Your task to perform on an android device: turn off data saver in the chrome app Image 0: 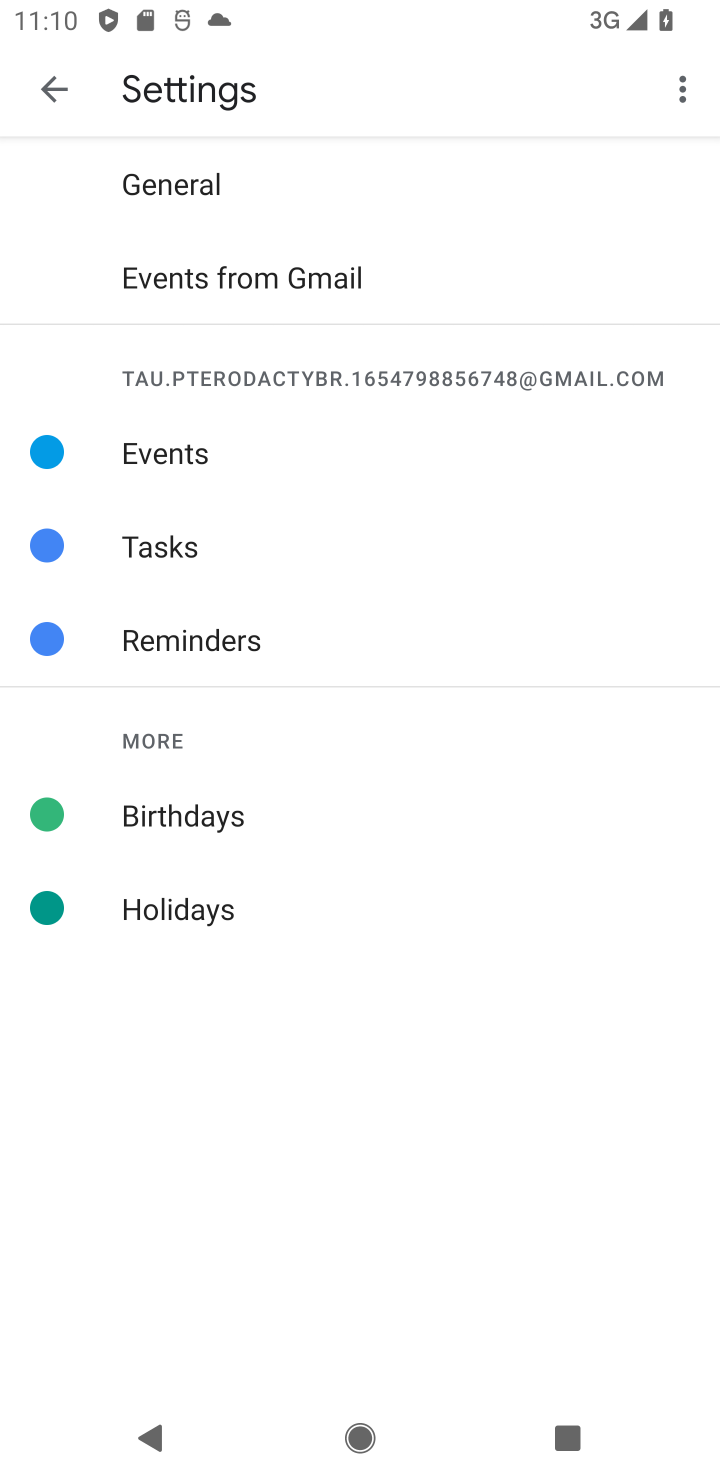
Step 0: press home button
Your task to perform on an android device: turn off data saver in the chrome app Image 1: 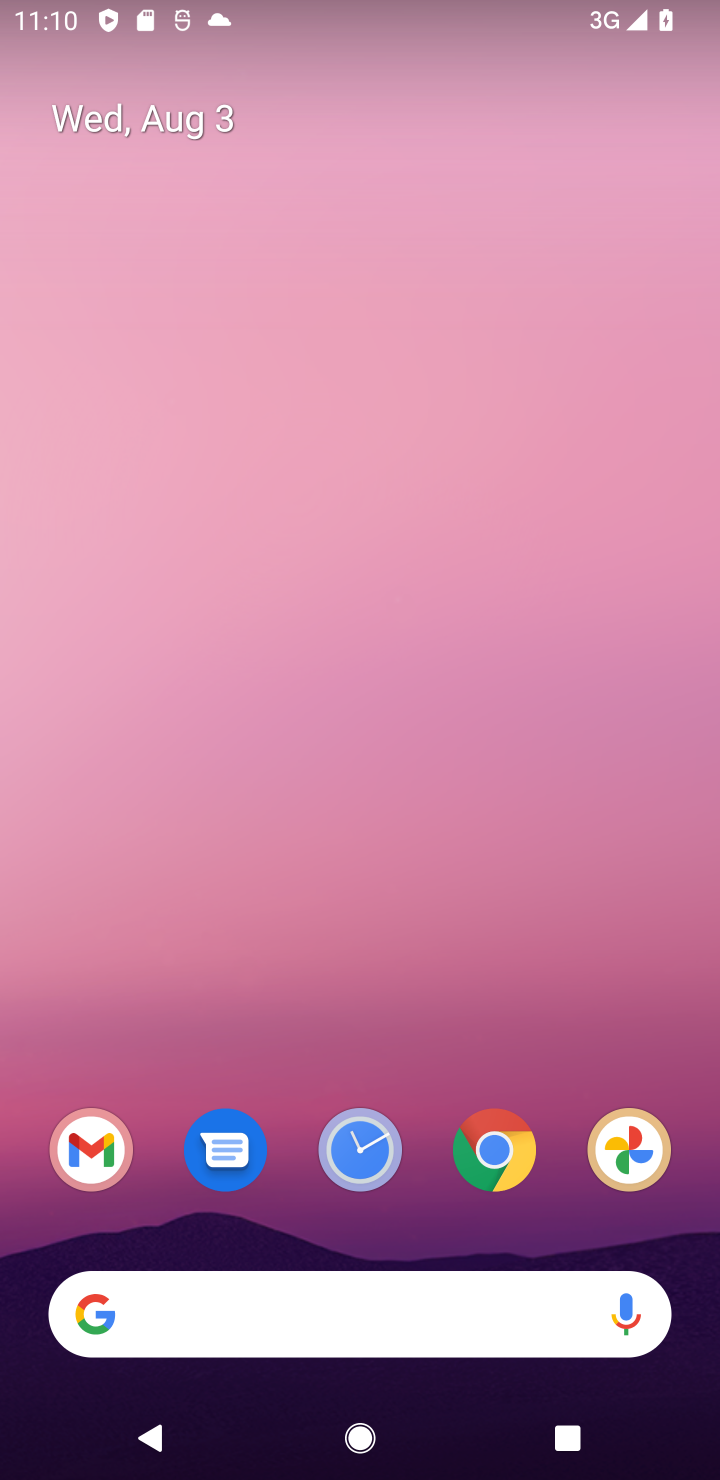
Step 1: drag from (449, 1012) to (508, 333)
Your task to perform on an android device: turn off data saver in the chrome app Image 2: 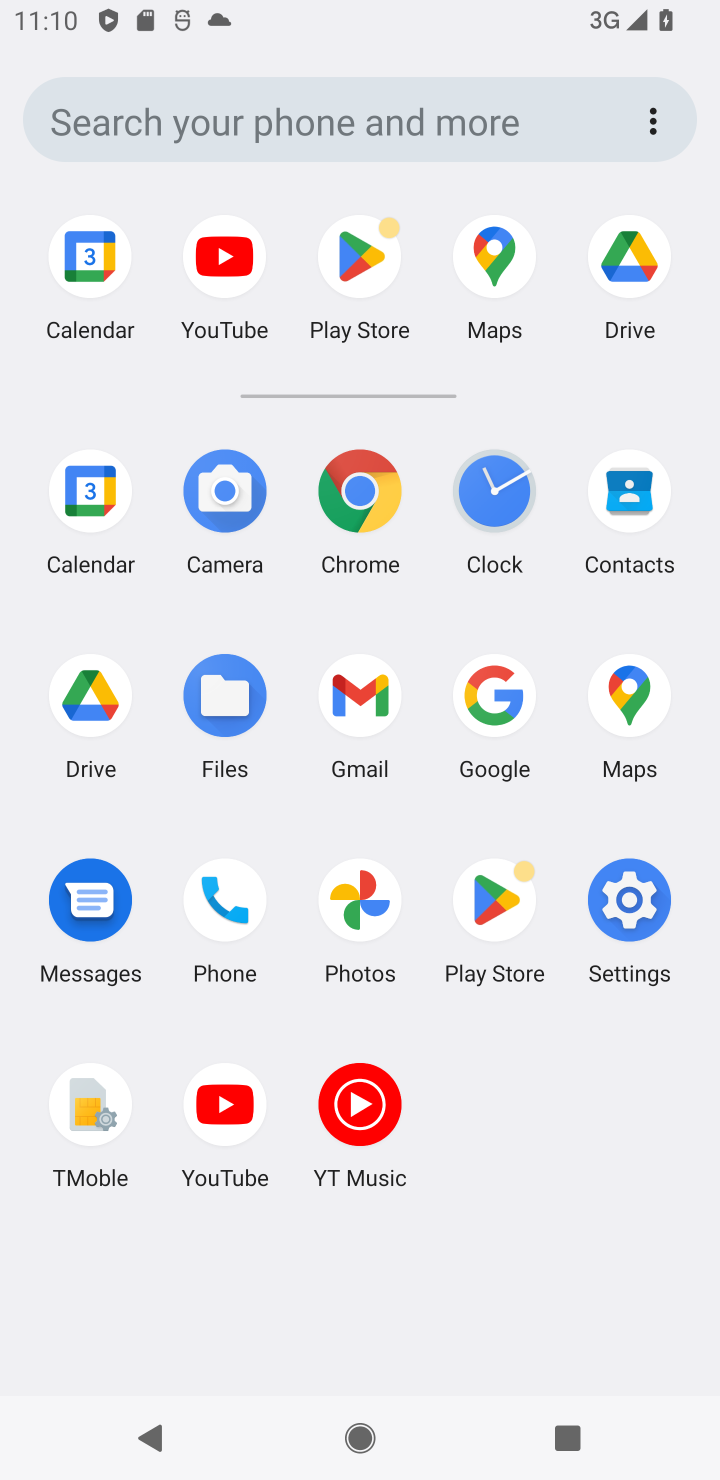
Step 2: click (353, 498)
Your task to perform on an android device: turn off data saver in the chrome app Image 3: 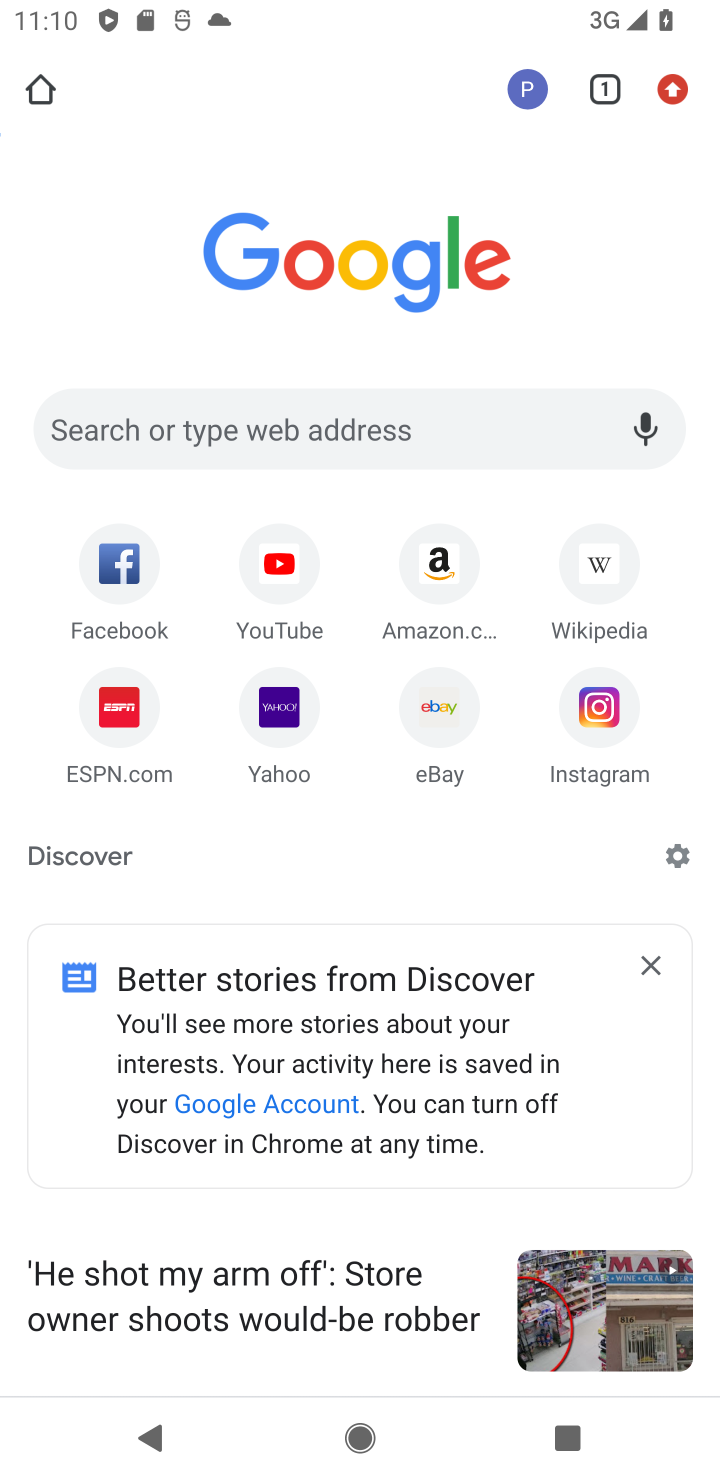
Step 3: click (674, 98)
Your task to perform on an android device: turn off data saver in the chrome app Image 4: 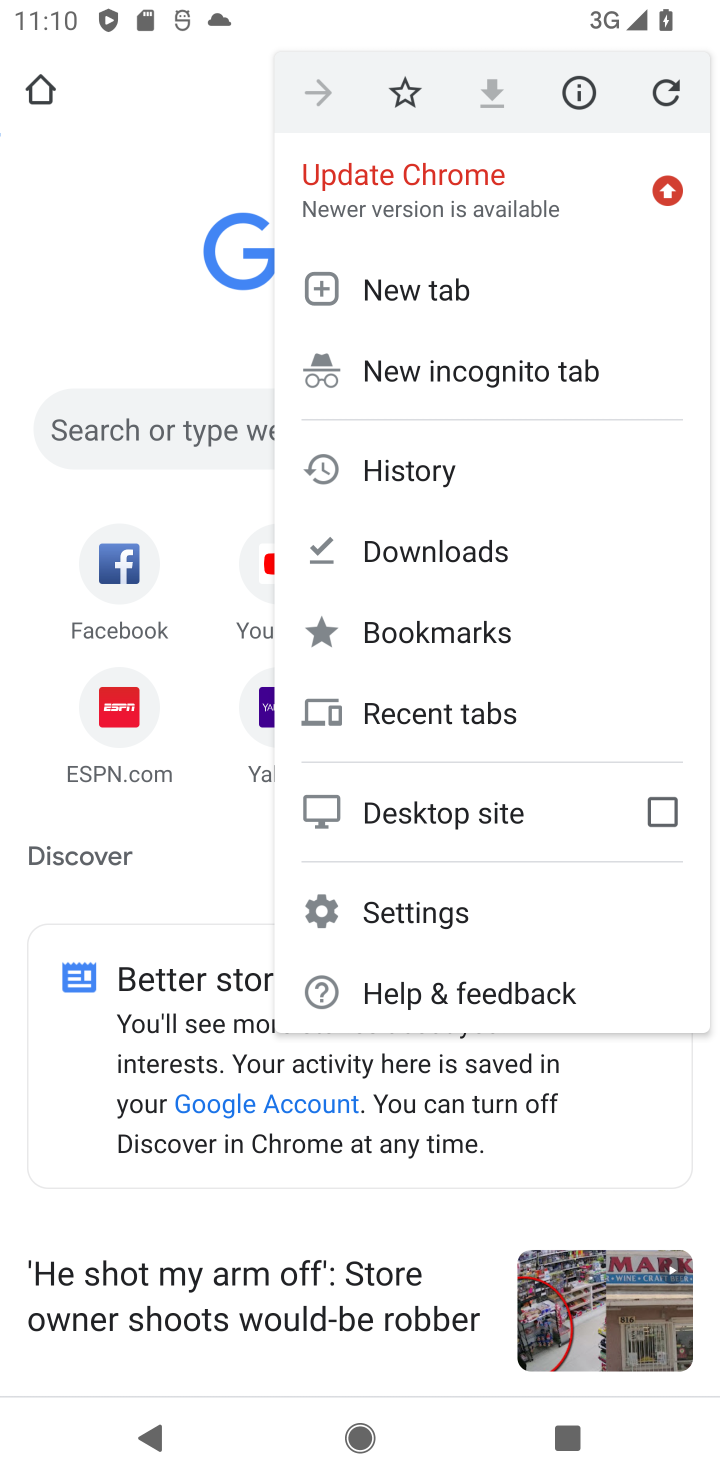
Step 4: click (469, 907)
Your task to perform on an android device: turn off data saver in the chrome app Image 5: 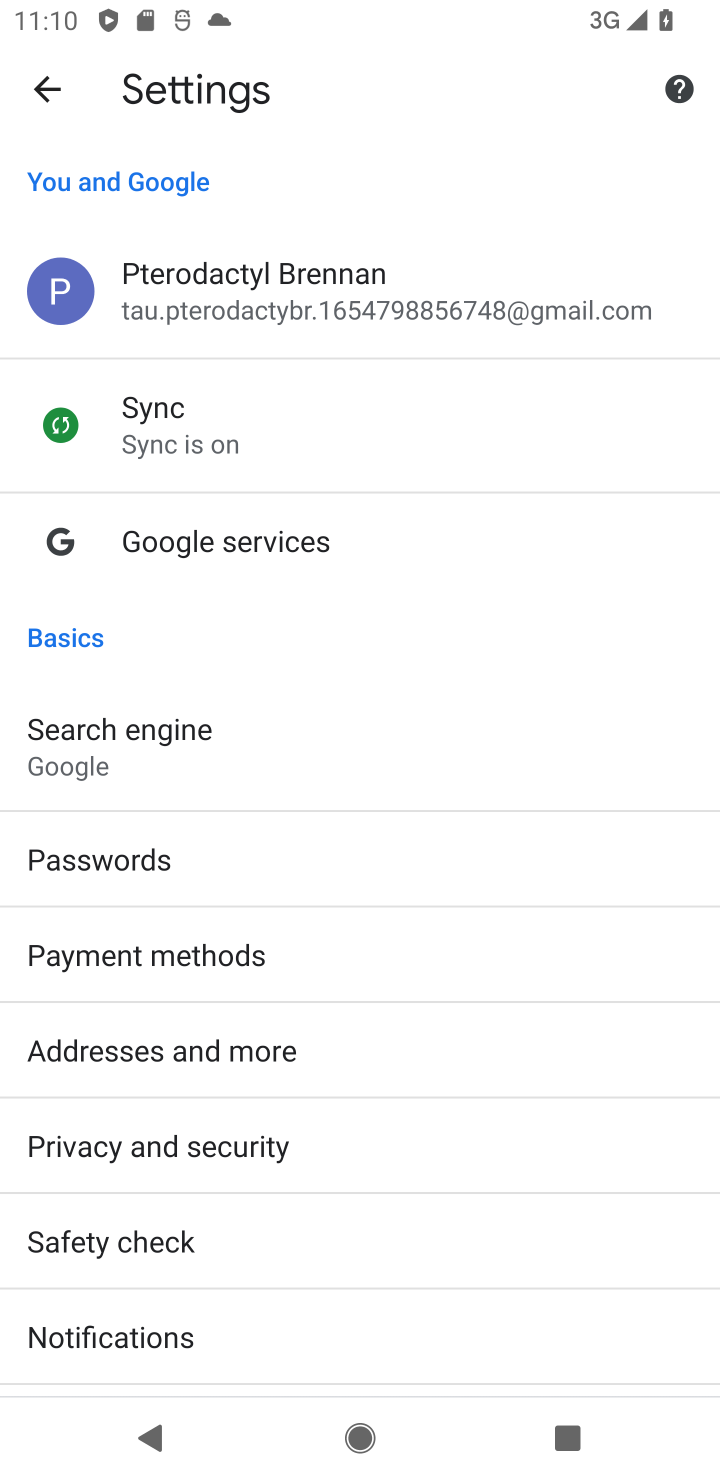
Step 5: drag from (530, 1020) to (541, 744)
Your task to perform on an android device: turn off data saver in the chrome app Image 6: 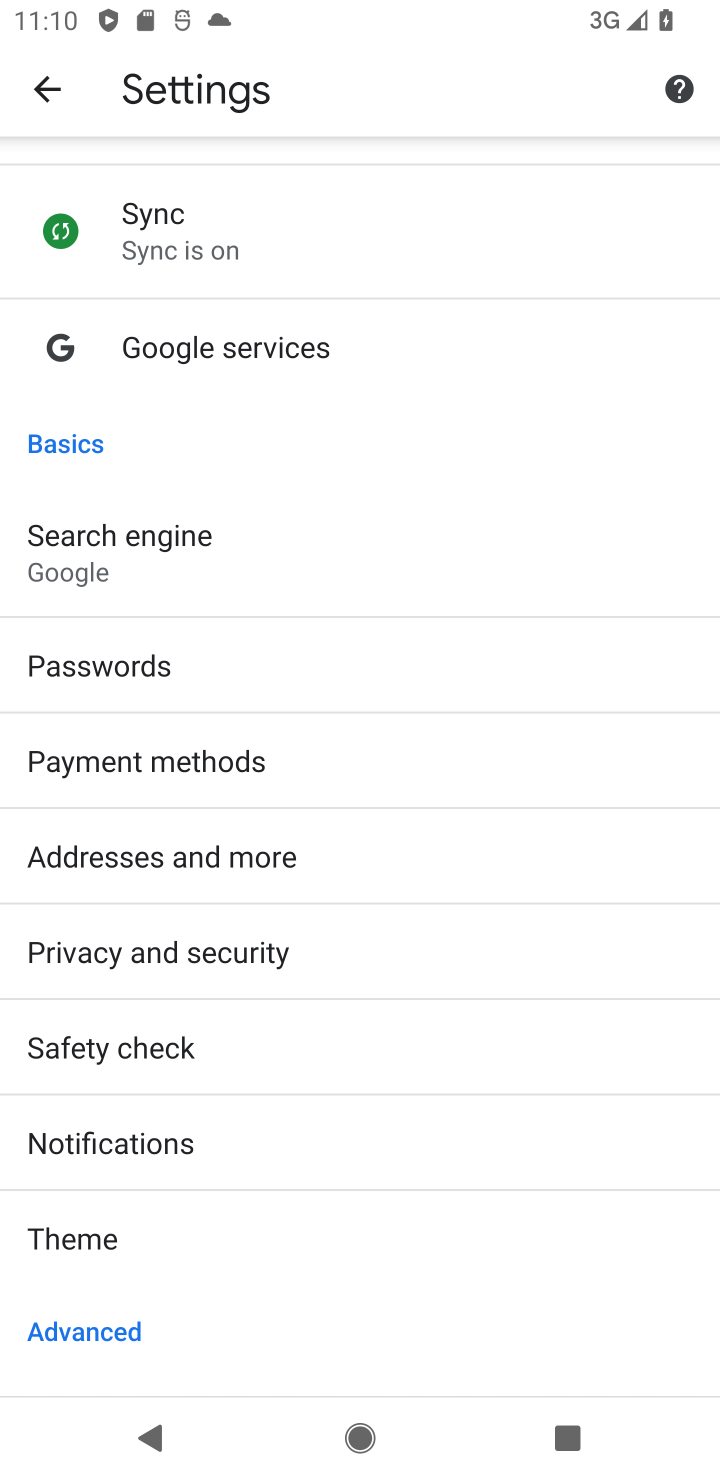
Step 6: drag from (557, 1004) to (583, 802)
Your task to perform on an android device: turn off data saver in the chrome app Image 7: 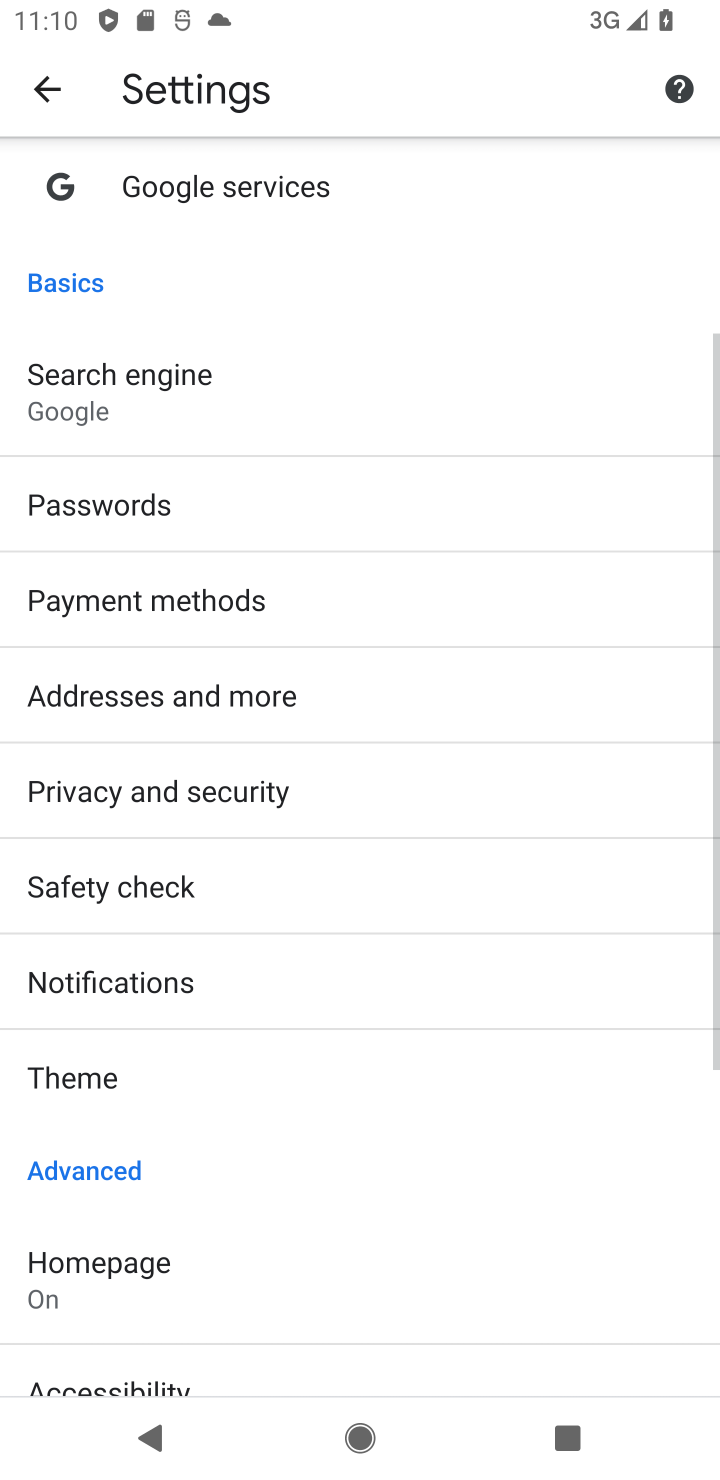
Step 7: drag from (532, 1106) to (588, 796)
Your task to perform on an android device: turn off data saver in the chrome app Image 8: 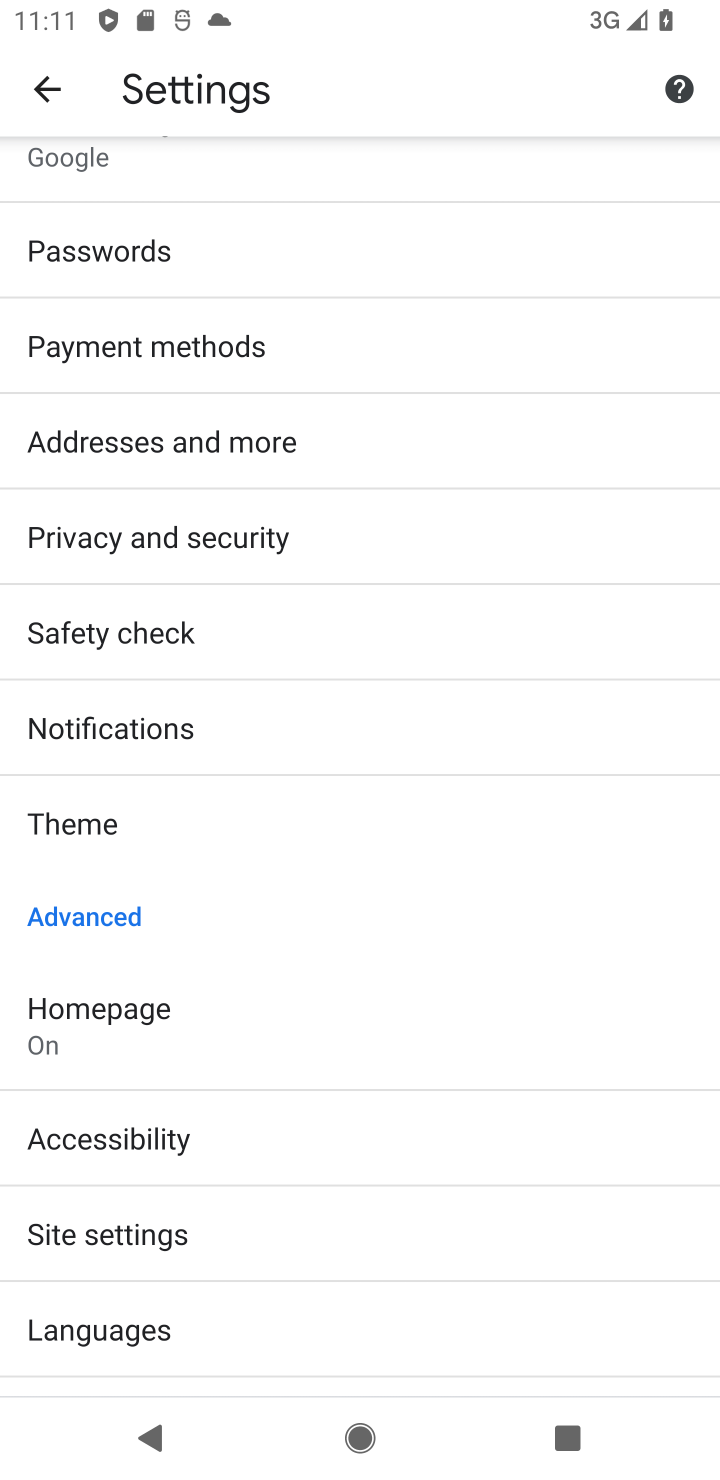
Step 8: drag from (402, 1156) to (407, 833)
Your task to perform on an android device: turn off data saver in the chrome app Image 9: 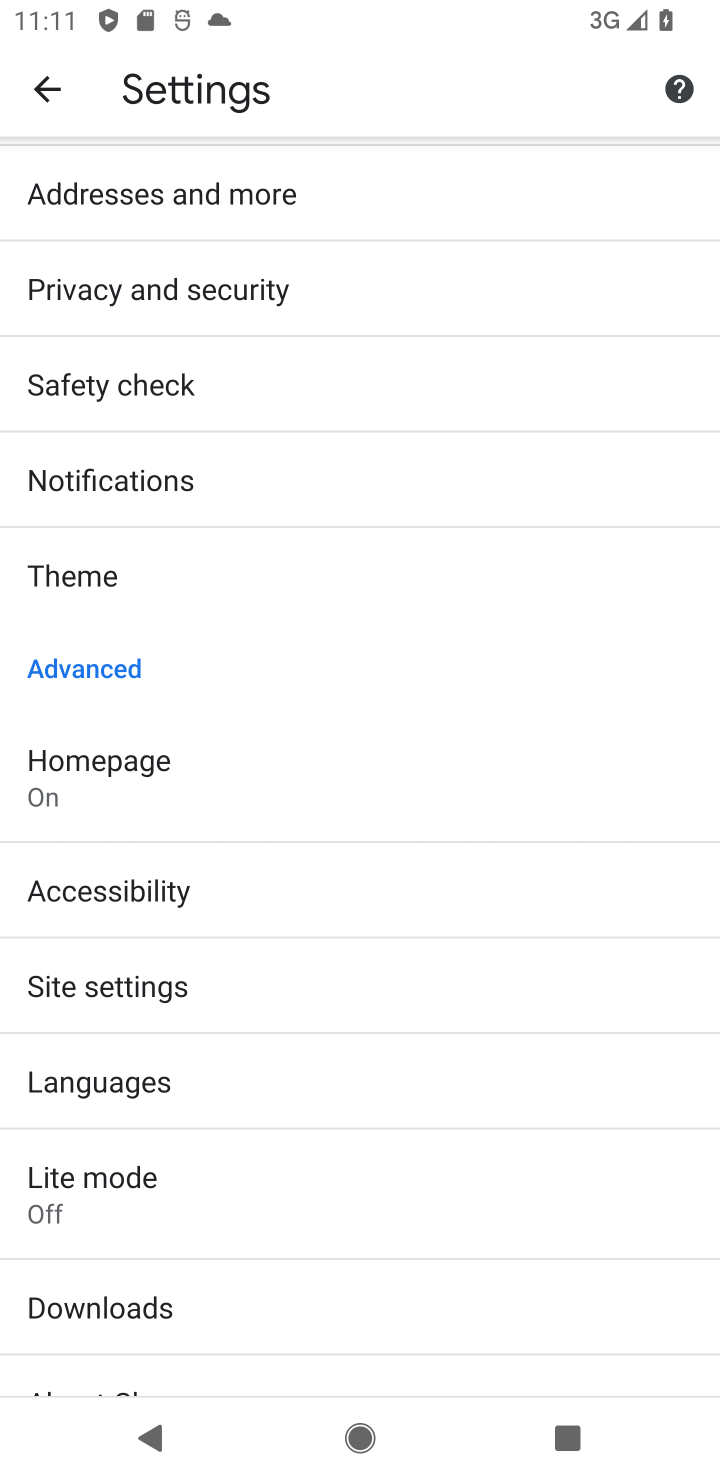
Step 9: drag from (460, 1147) to (464, 876)
Your task to perform on an android device: turn off data saver in the chrome app Image 10: 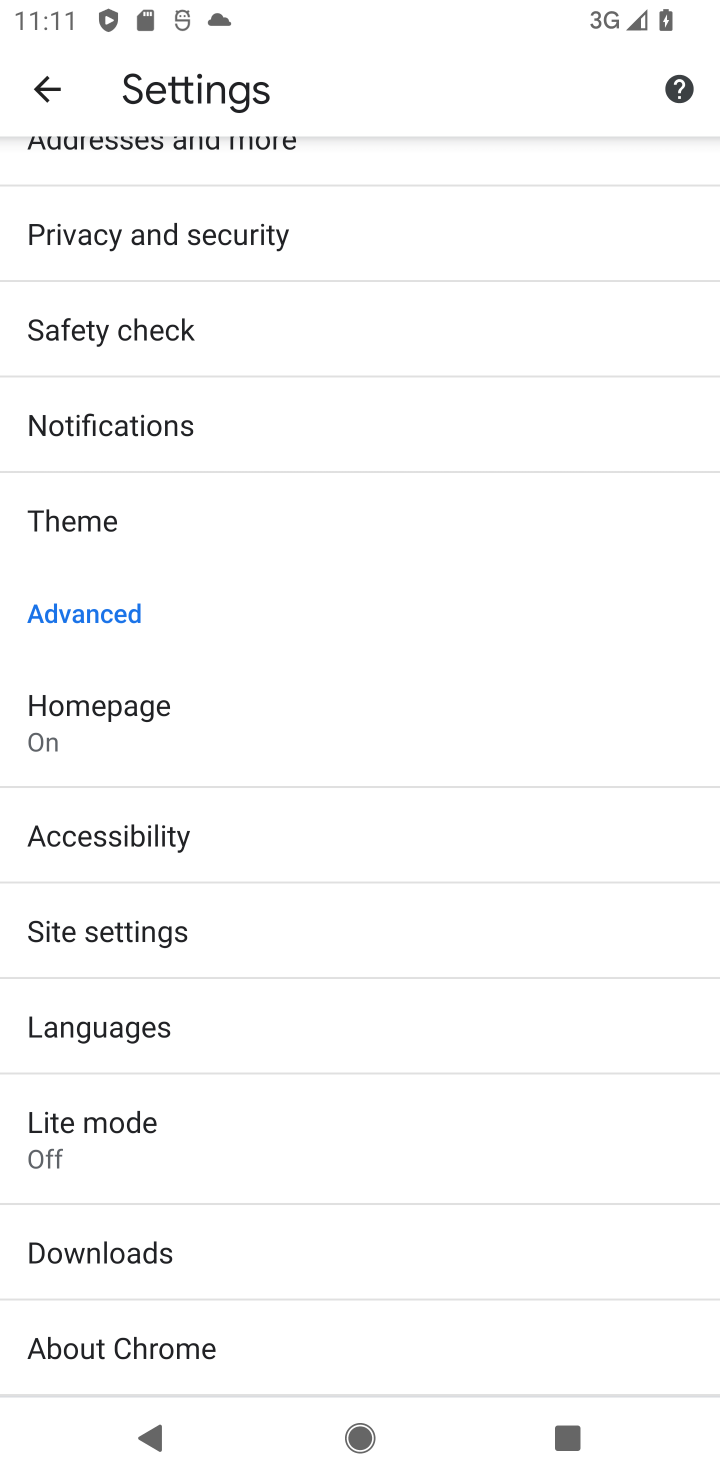
Step 10: click (464, 1141)
Your task to perform on an android device: turn off data saver in the chrome app Image 11: 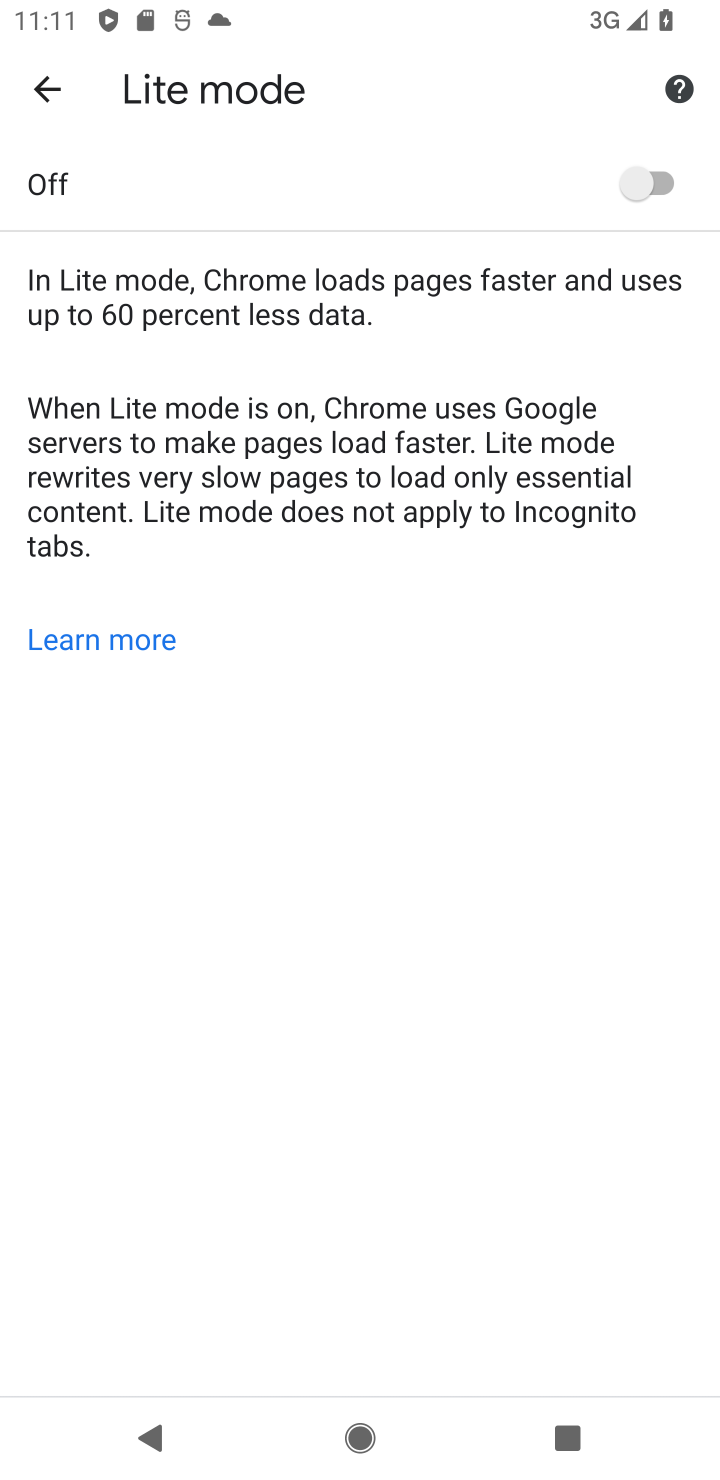
Step 11: task complete